Your task to perform on an android device: Do I have any events tomorrow? Image 0: 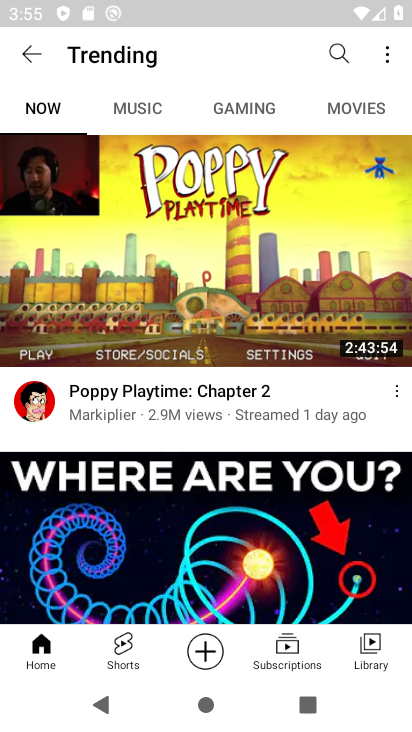
Step 0: press home button
Your task to perform on an android device: Do I have any events tomorrow? Image 1: 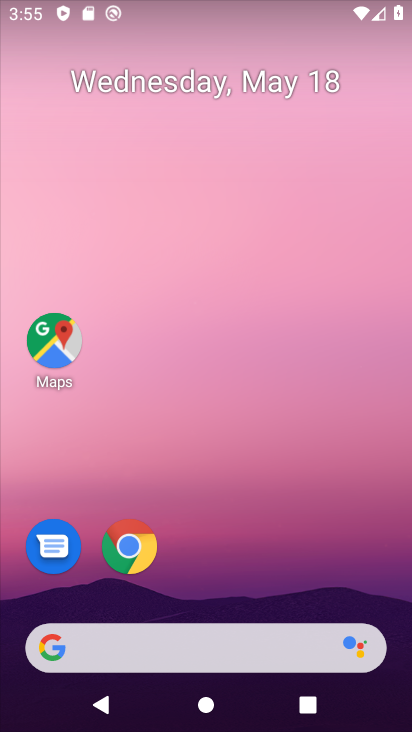
Step 1: drag from (244, 582) to (255, 8)
Your task to perform on an android device: Do I have any events tomorrow? Image 2: 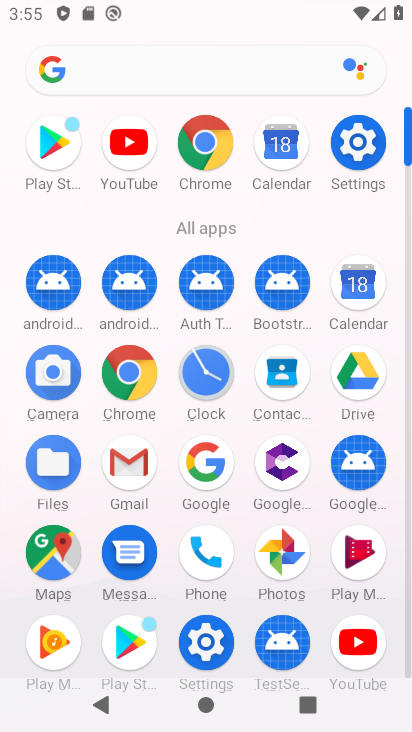
Step 2: click (353, 304)
Your task to perform on an android device: Do I have any events tomorrow? Image 3: 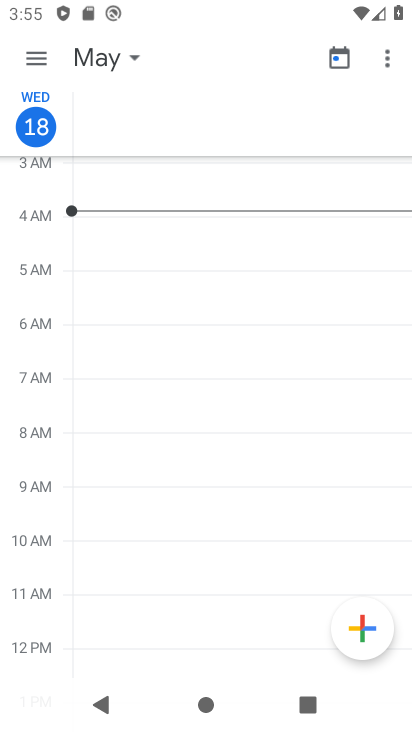
Step 3: click (32, 50)
Your task to perform on an android device: Do I have any events tomorrow? Image 4: 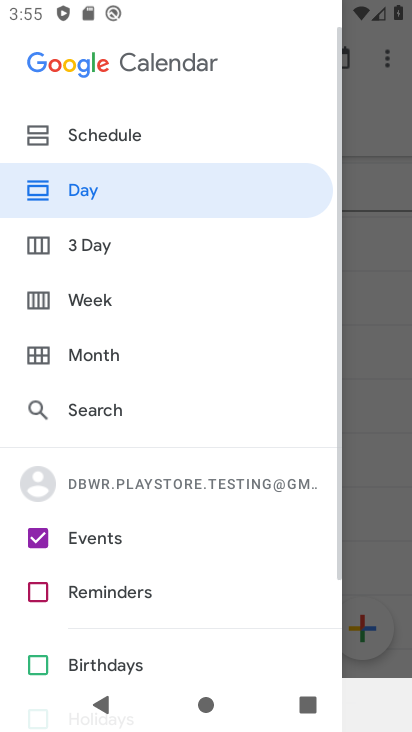
Step 4: click (117, 257)
Your task to perform on an android device: Do I have any events tomorrow? Image 5: 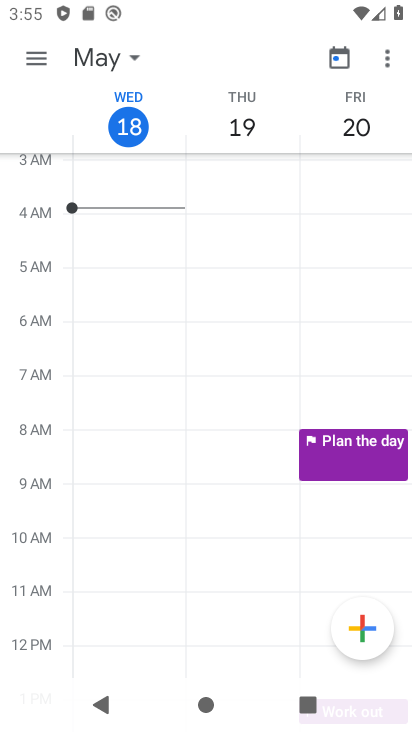
Step 5: task complete